Your task to perform on an android device: uninstall "Indeed Job Search" Image 0: 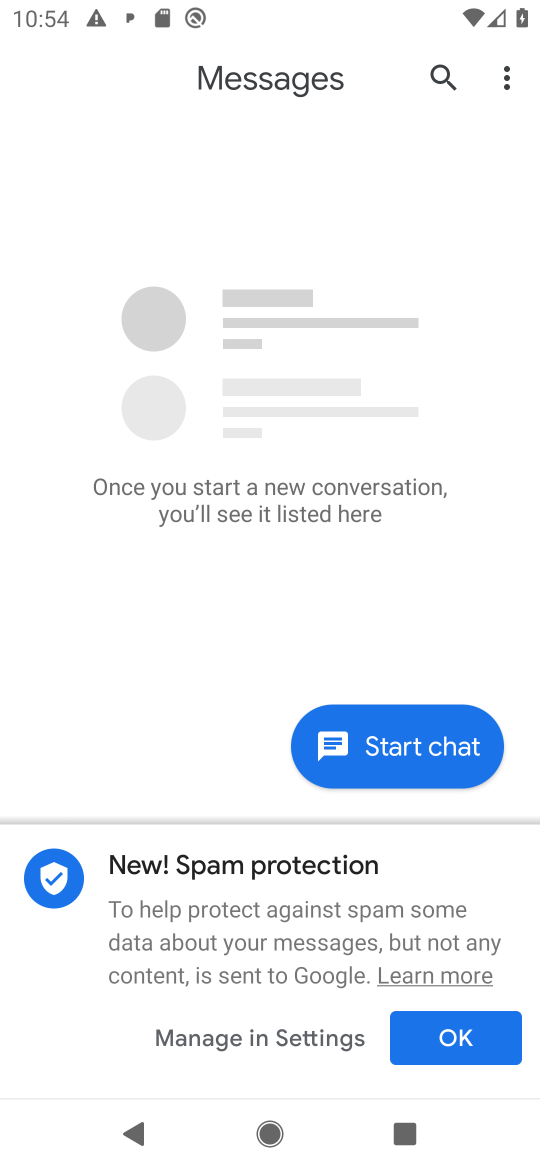
Step 0: press home button
Your task to perform on an android device: uninstall "Indeed Job Search" Image 1: 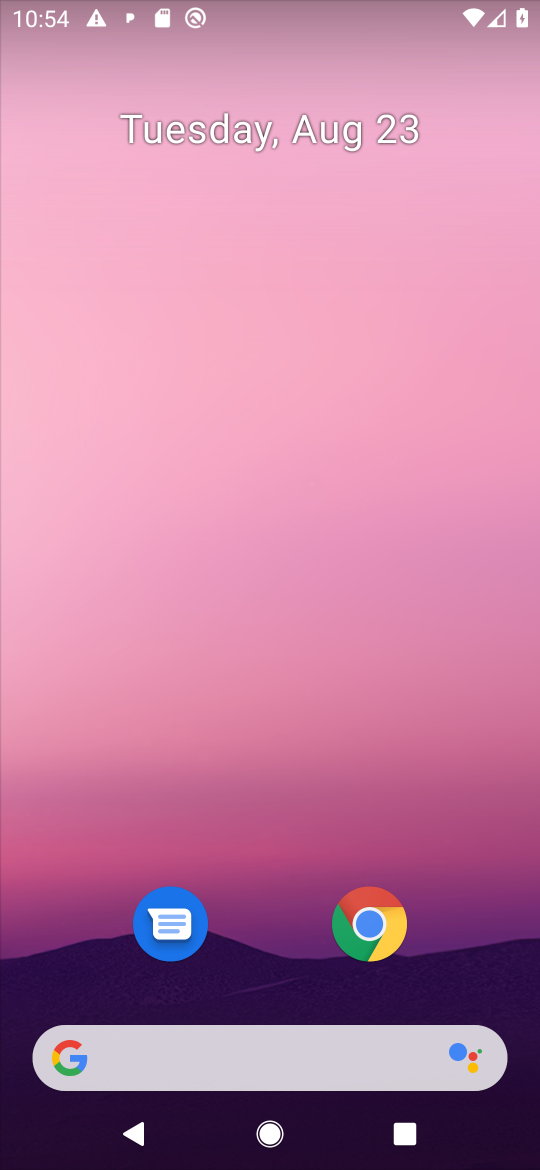
Step 1: drag from (466, 980) to (460, 146)
Your task to perform on an android device: uninstall "Indeed Job Search" Image 2: 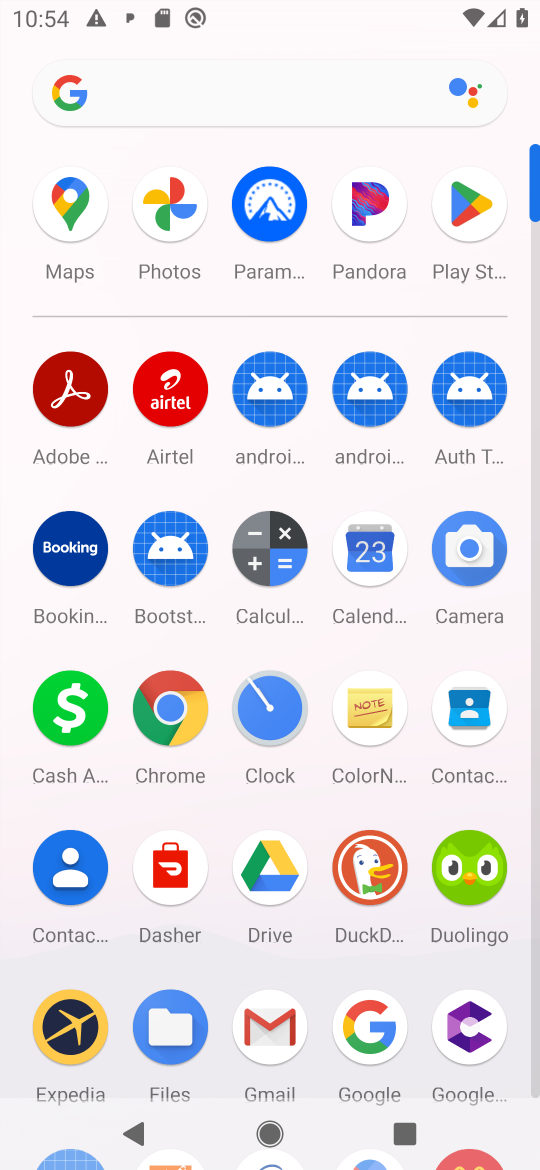
Step 2: click (456, 204)
Your task to perform on an android device: uninstall "Indeed Job Search" Image 3: 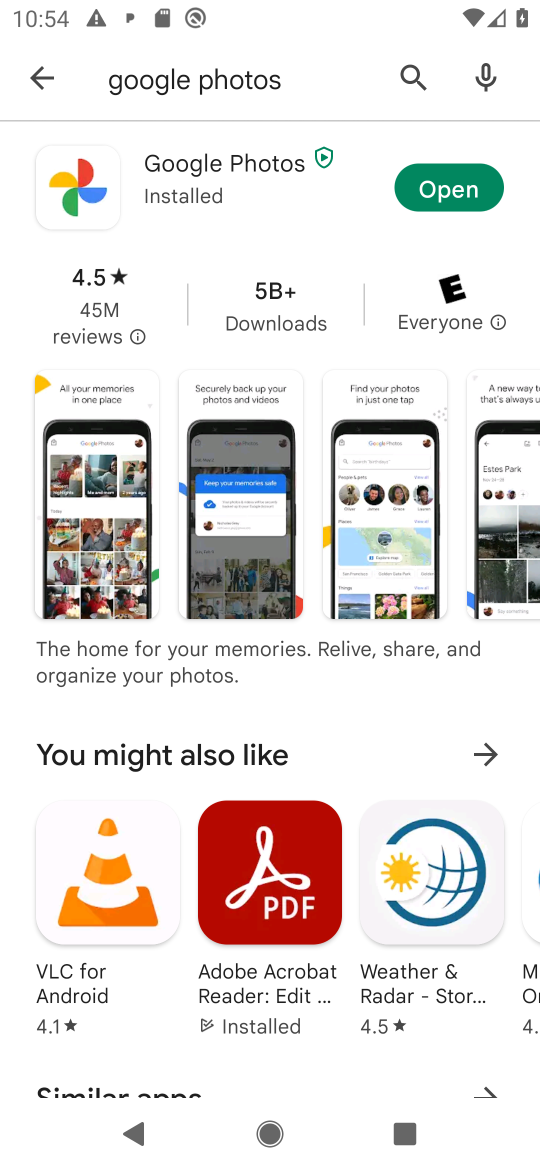
Step 3: press back button
Your task to perform on an android device: uninstall "Indeed Job Search" Image 4: 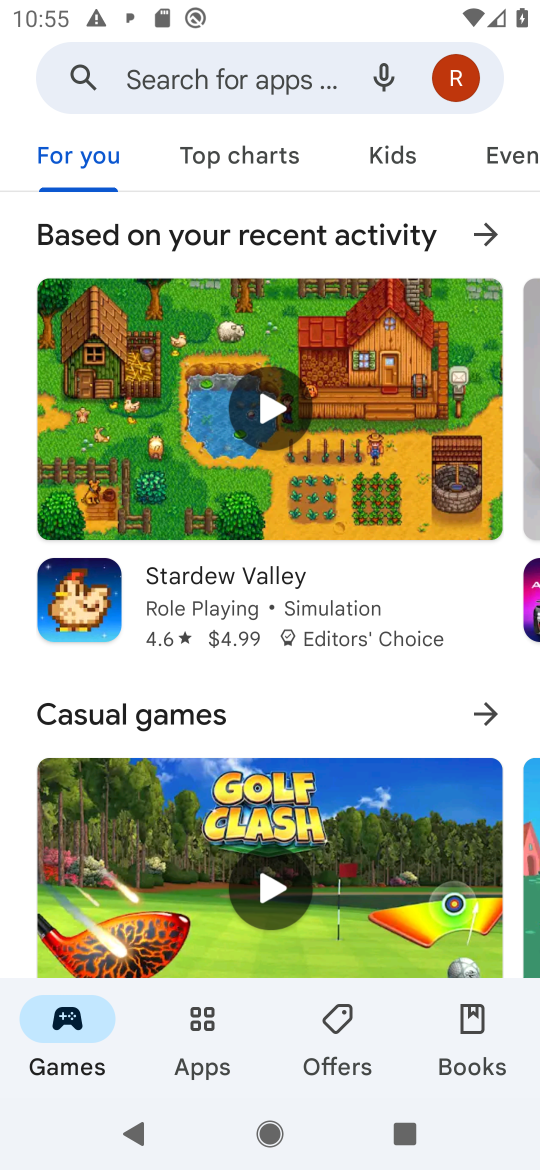
Step 4: click (289, 87)
Your task to perform on an android device: uninstall "Indeed Job Search" Image 5: 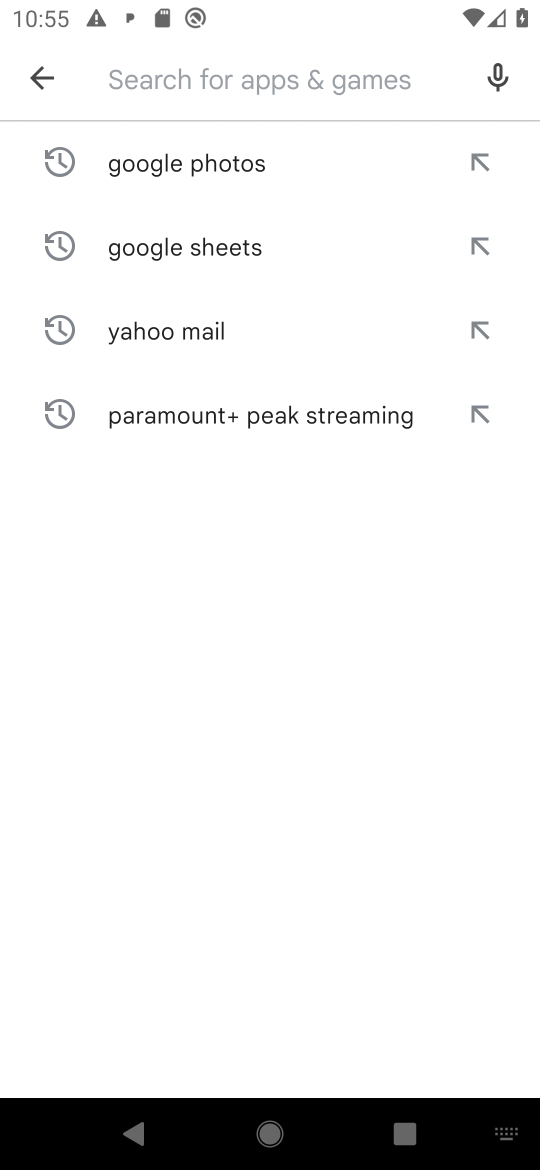
Step 5: type "Indeed Job Search"
Your task to perform on an android device: uninstall "Indeed Job Search" Image 6: 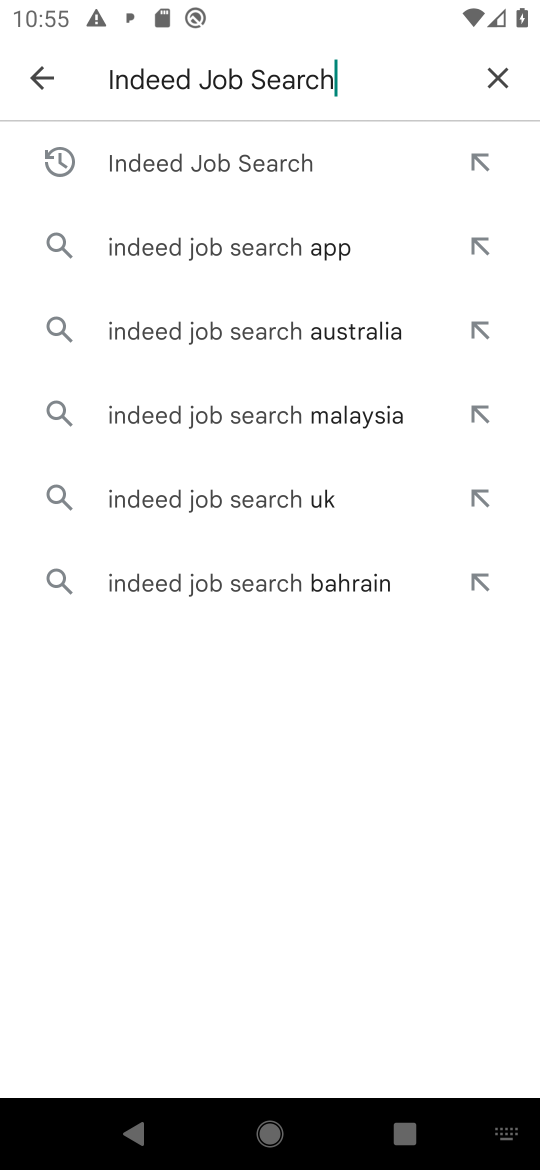
Step 6: press enter
Your task to perform on an android device: uninstall "Indeed Job Search" Image 7: 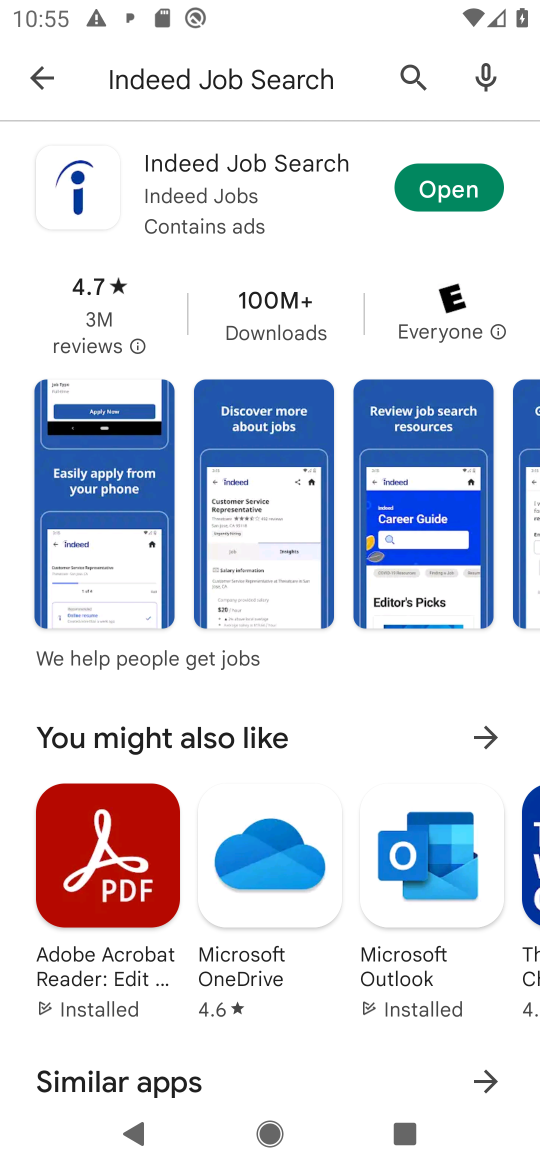
Step 7: task complete